Your task to perform on an android device: add a contact in the contacts app Image 0: 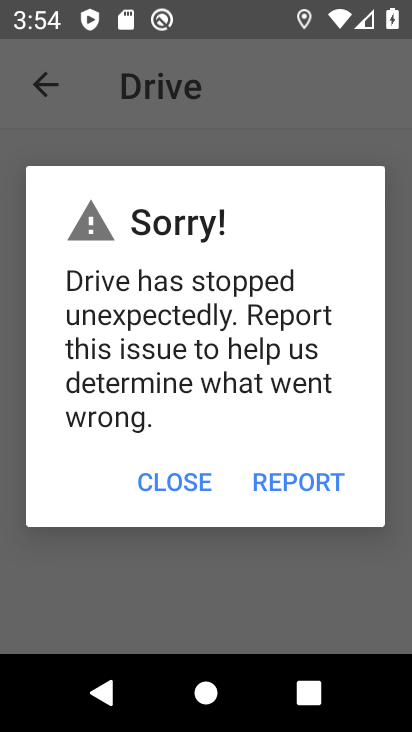
Step 0: press home button
Your task to perform on an android device: add a contact in the contacts app Image 1: 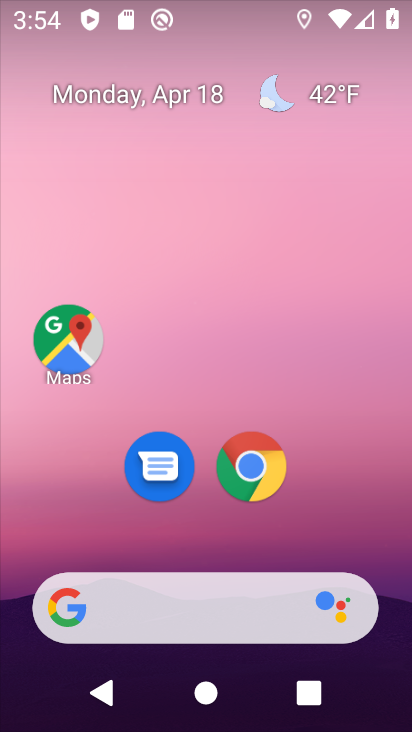
Step 1: drag from (390, 574) to (329, 111)
Your task to perform on an android device: add a contact in the contacts app Image 2: 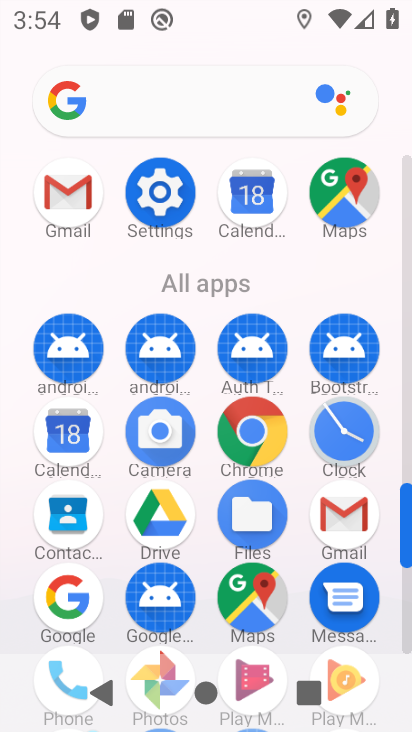
Step 2: click (407, 633)
Your task to perform on an android device: add a contact in the contacts app Image 3: 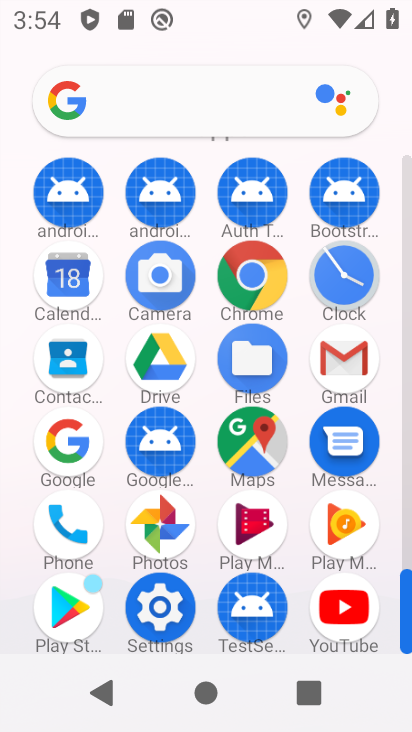
Step 3: click (62, 355)
Your task to perform on an android device: add a contact in the contacts app Image 4: 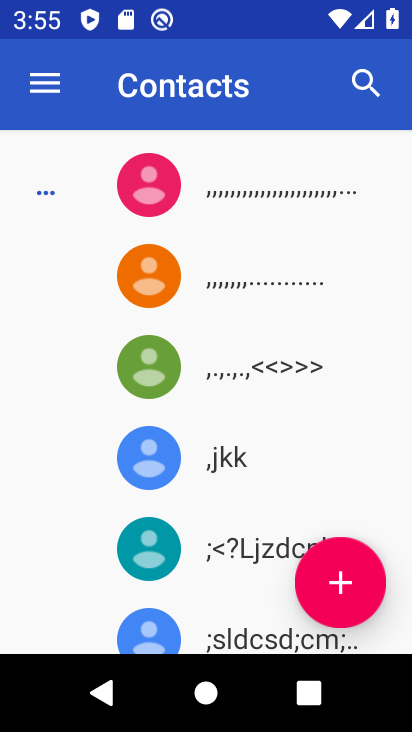
Step 4: click (337, 580)
Your task to perform on an android device: add a contact in the contacts app Image 5: 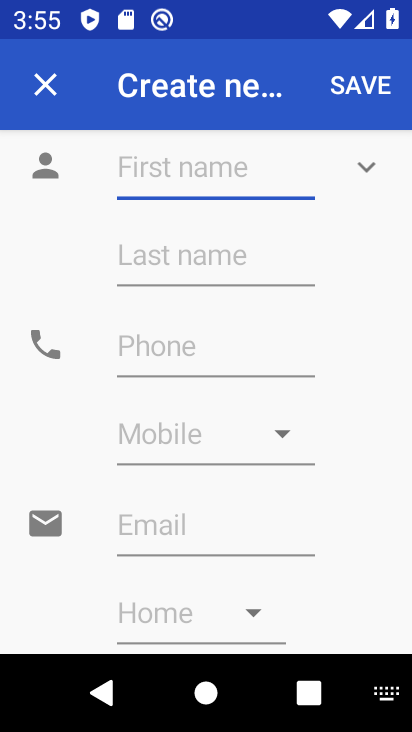
Step 5: type "adfghjop"
Your task to perform on an android device: add a contact in the contacts app Image 6: 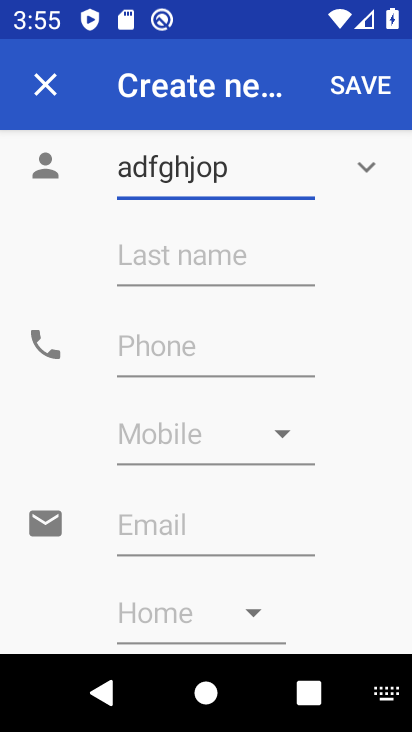
Step 6: click (174, 359)
Your task to perform on an android device: add a contact in the contacts app Image 7: 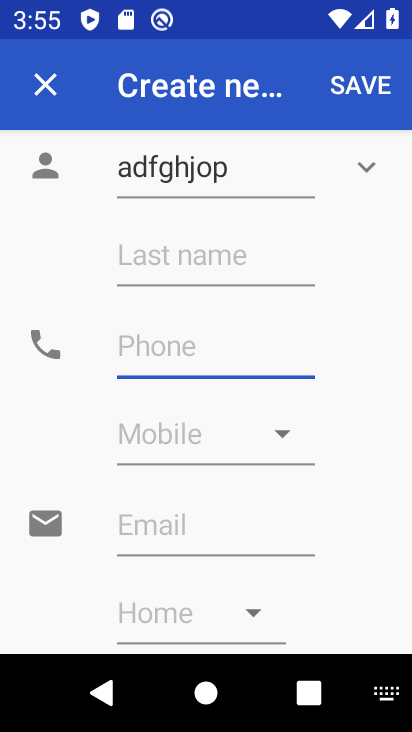
Step 7: type "095432157"
Your task to perform on an android device: add a contact in the contacts app Image 8: 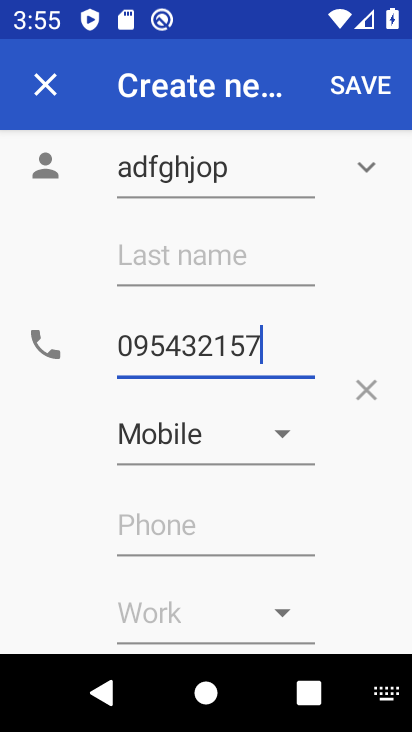
Step 8: click (287, 427)
Your task to perform on an android device: add a contact in the contacts app Image 9: 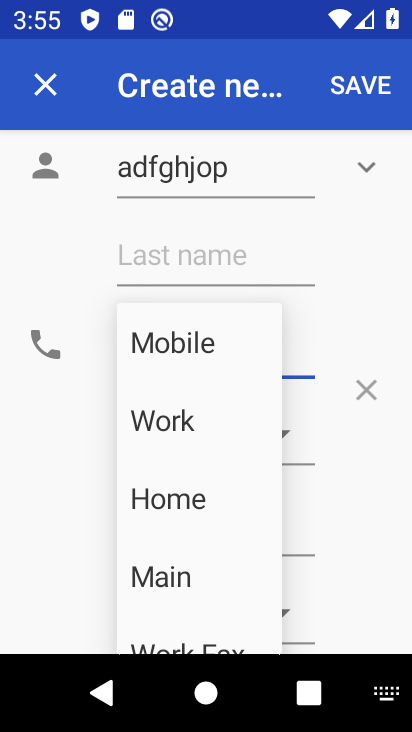
Step 9: click (155, 431)
Your task to perform on an android device: add a contact in the contacts app Image 10: 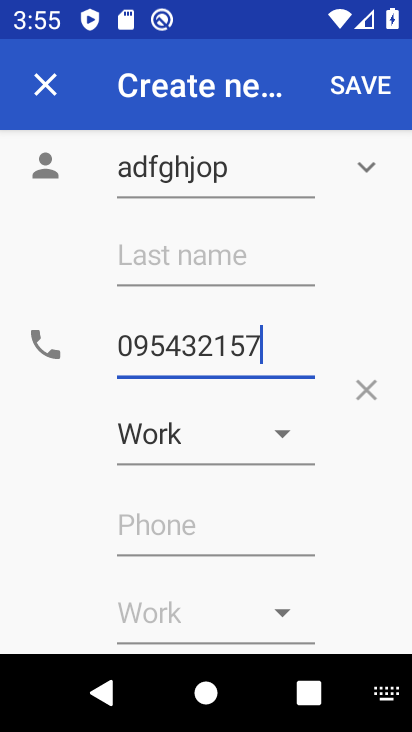
Step 10: click (352, 86)
Your task to perform on an android device: add a contact in the contacts app Image 11: 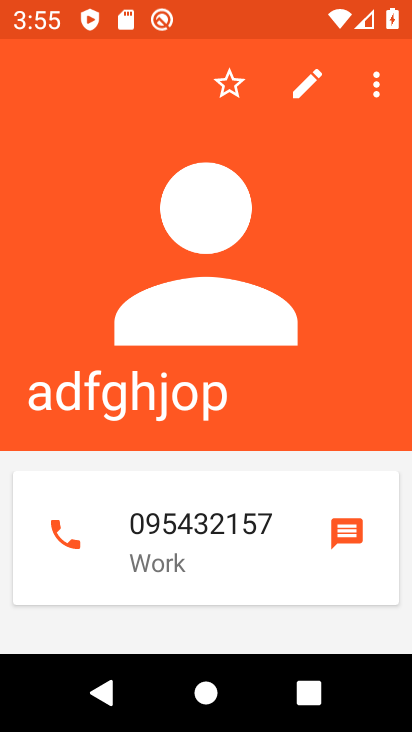
Step 11: task complete